Your task to perform on an android device: find snoozed emails in the gmail app Image 0: 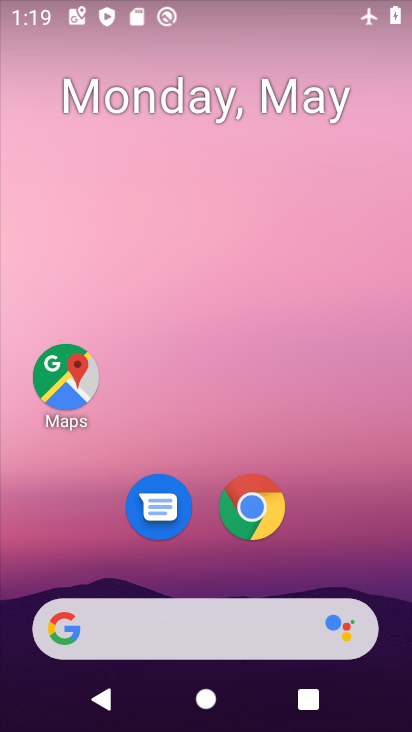
Step 0: drag from (237, 718) to (217, 96)
Your task to perform on an android device: find snoozed emails in the gmail app Image 1: 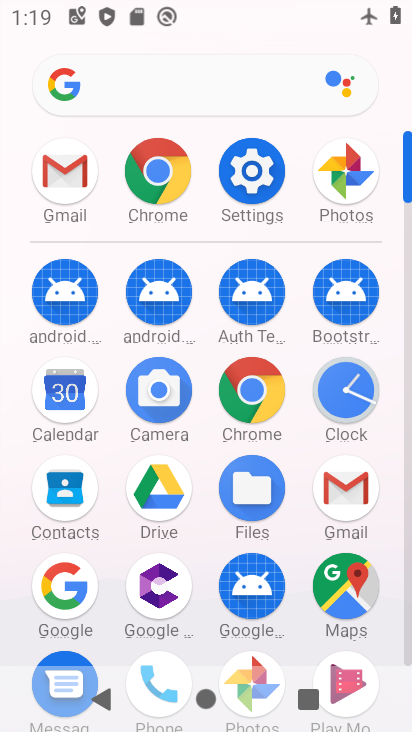
Step 1: click (347, 493)
Your task to perform on an android device: find snoozed emails in the gmail app Image 2: 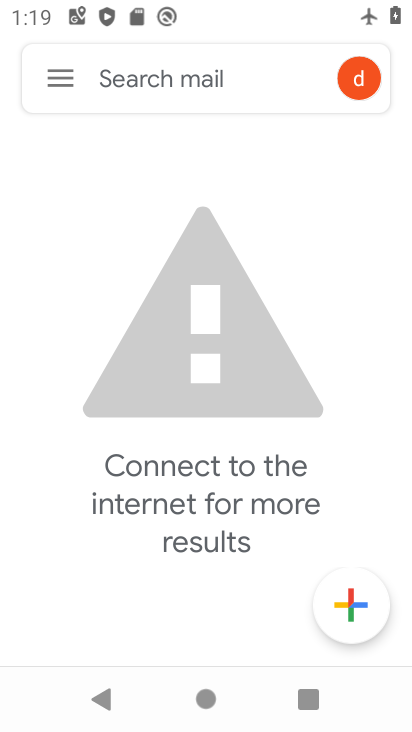
Step 2: click (60, 81)
Your task to perform on an android device: find snoozed emails in the gmail app Image 3: 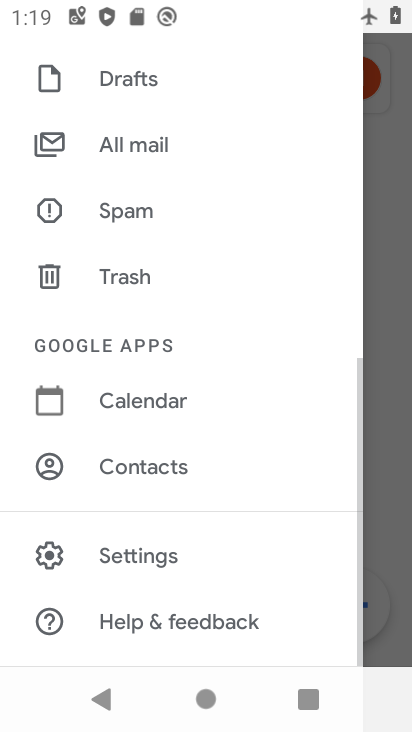
Step 3: drag from (152, 196) to (173, 545)
Your task to perform on an android device: find snoozed emails in the gmail app Image 4: 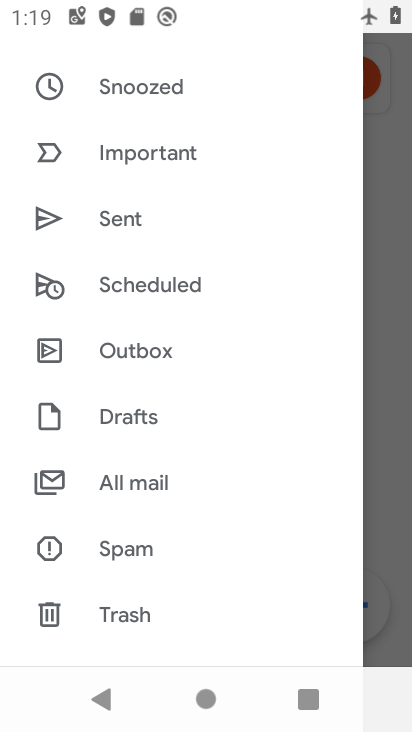
Step 4: click (154, 92)
Your task to perform on an android device: find snoozed emails in the gmail app Image 5: 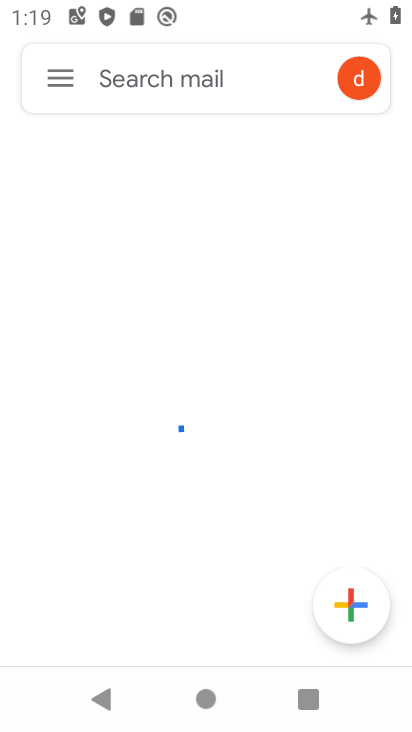
Step 5: task complete